Your task to perform on an android device: Go to eBay Image 0: 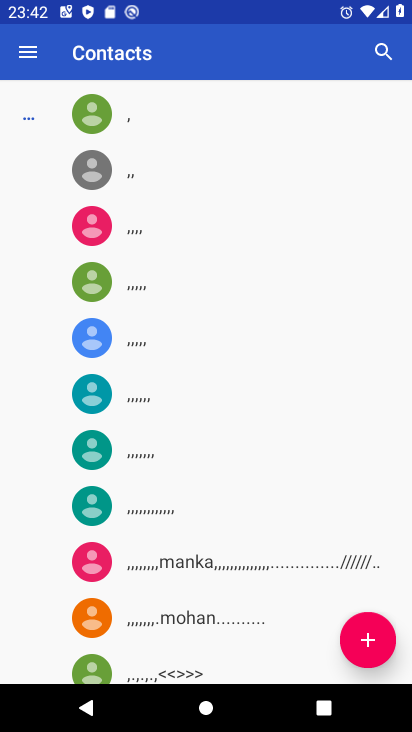
Step 0: press home button
Your task to perform on an android device: Go to eBay Image 1: 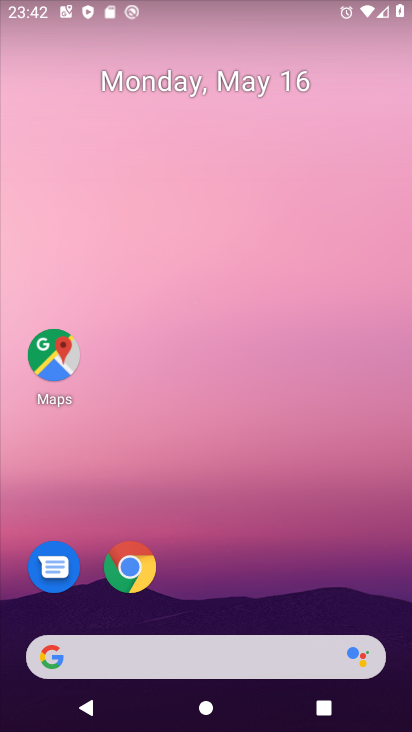
Step 1: drag from (236, 484) to (175, 126)
Your task to perform on an android device: Go to eBay Image 2: 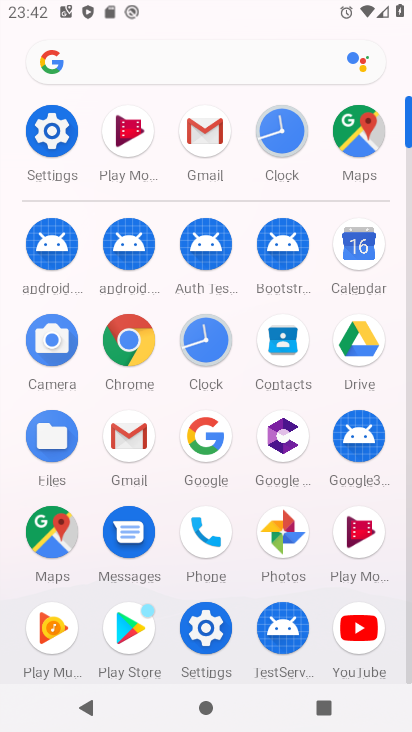
Step 2: click (129, 339)
Your task to perform on an android device: Go to eBay Image 3: 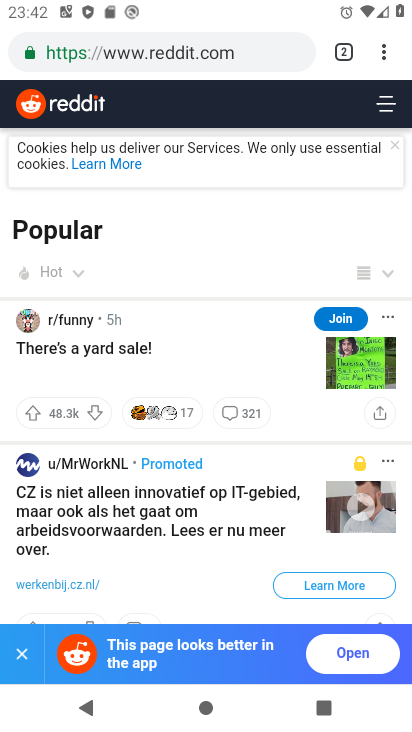
Step 3: click (380, 51)
Your task to perform on an android device: Go to eBay Image 4: 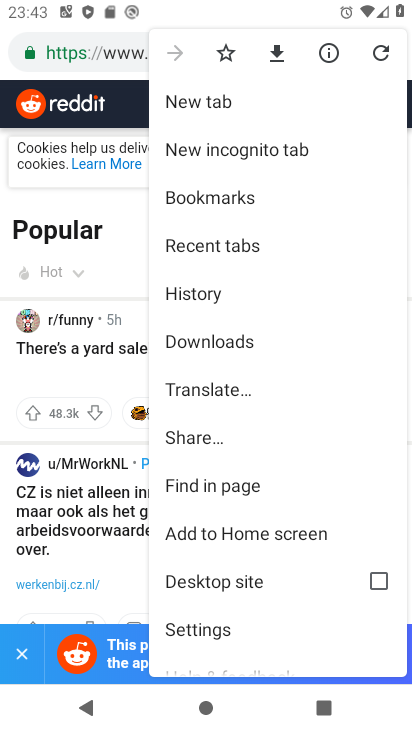
Step 4: click (220, 100)
Your task to perform on an android device: Go to eBay Image 5: 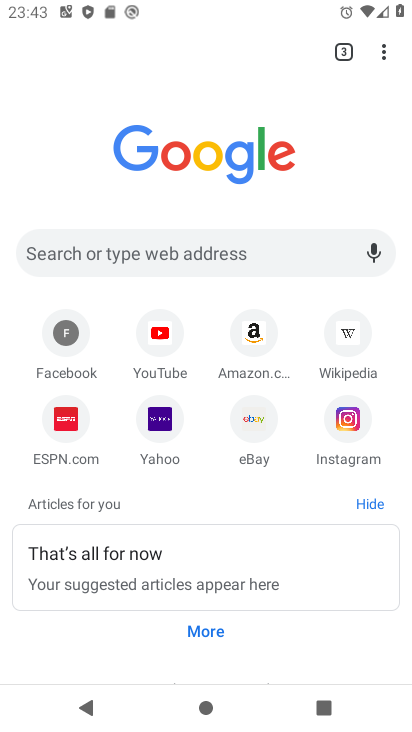
Step 5: click (245, 416)
Your task to perform on an android device: Go to eBay Image 6: 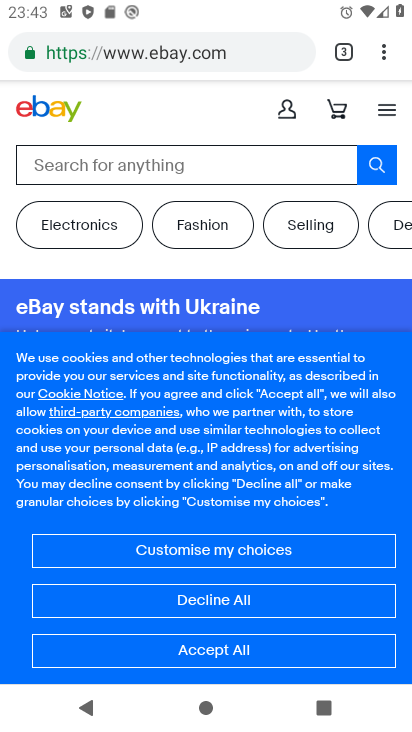
Step 6: task complete